Your task to perform on an android device: open chrome and create a bookmark for the current page Image 0: 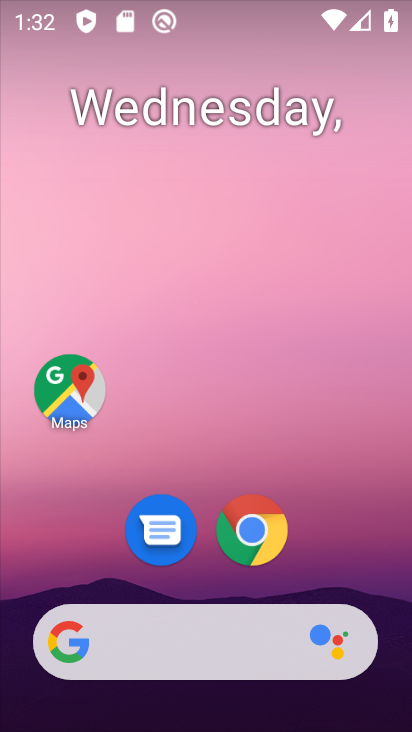
Step 0: click (253, 547)
Your task to perform on an android device: open chrome and create a bookmark for the current page Image 1: 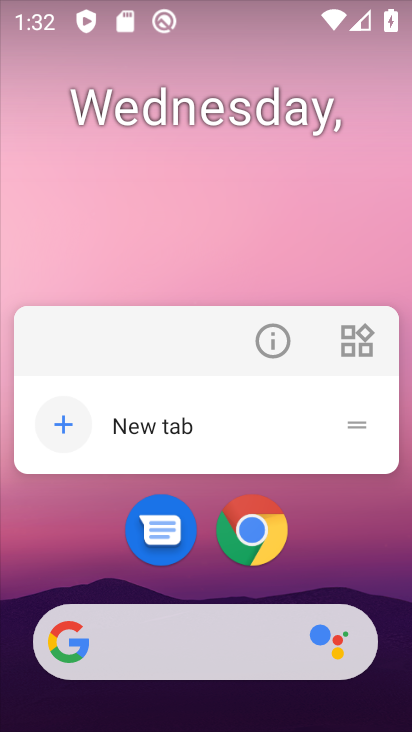
Step 1: click (254, 530)
Your task to perform on an android device: open chrome and create a bookmark for the current page Image 2: 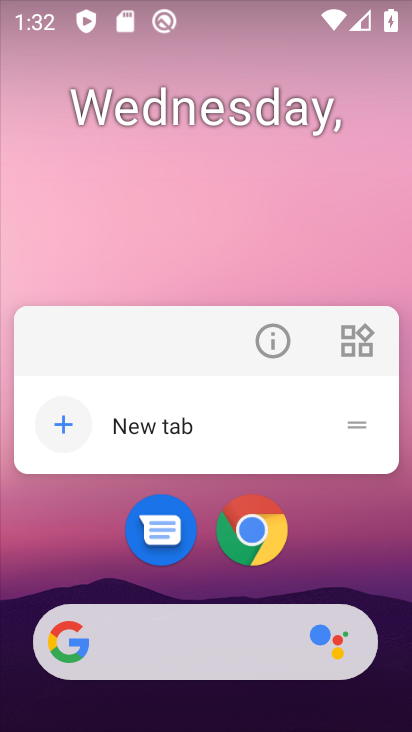
Step 2: click (254, 530)
Your task to perform on an android device: open chrome and create a bookmark for the current page Image 3: 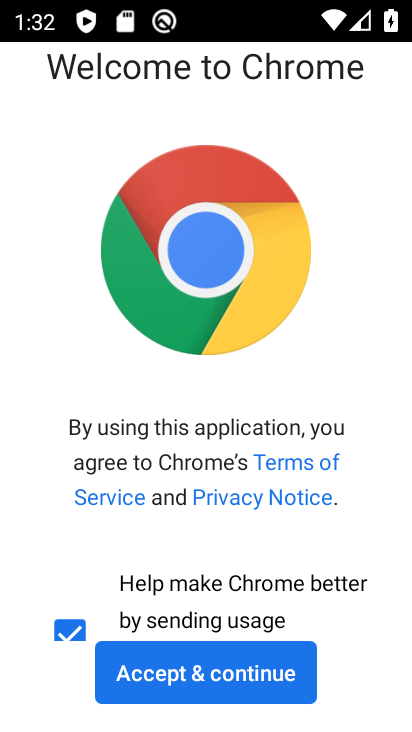
Step 3: click (281, 683)
Your task to perform on an android device: open chrome and create a bookmark for the current page Image 4: 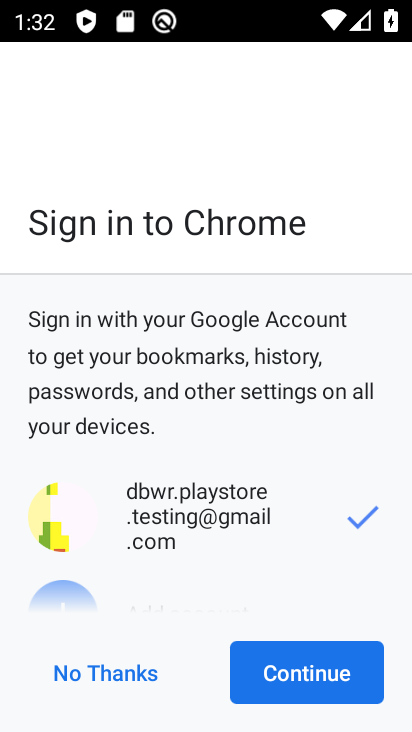
Step 4: click (287, 684)
Your task to perform on an android device: open chrome and create a bookmark for the current page Image 5: 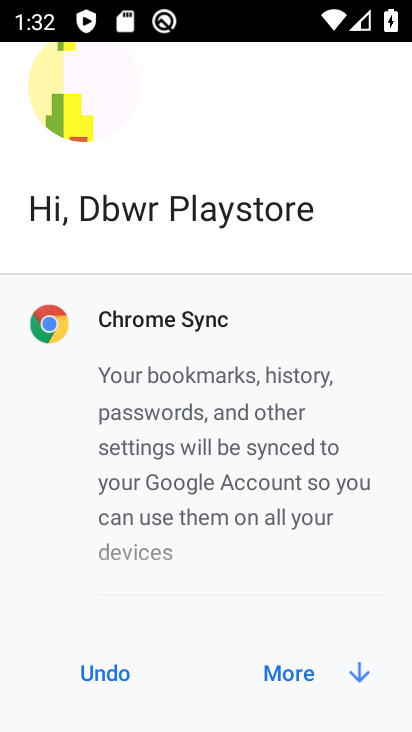
Step 5: click (288, 684)
Your task to perform on an android device: open chrome and create a bookmark for the current page Image 6: 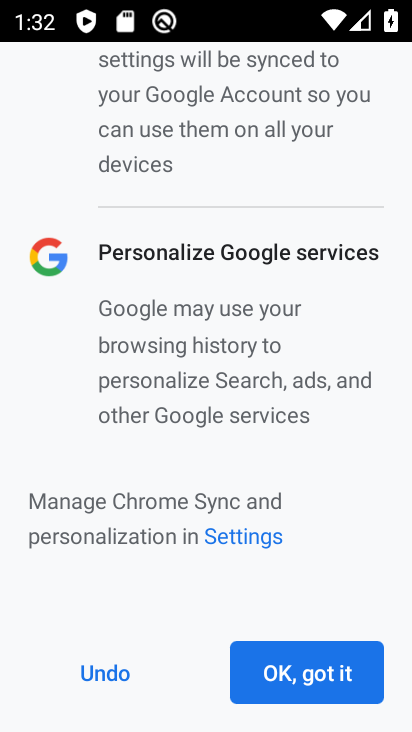
Step 6: click (290, 681)
Your task to perform on an android device: open chrome and create a bookmark for the current page Image 7: 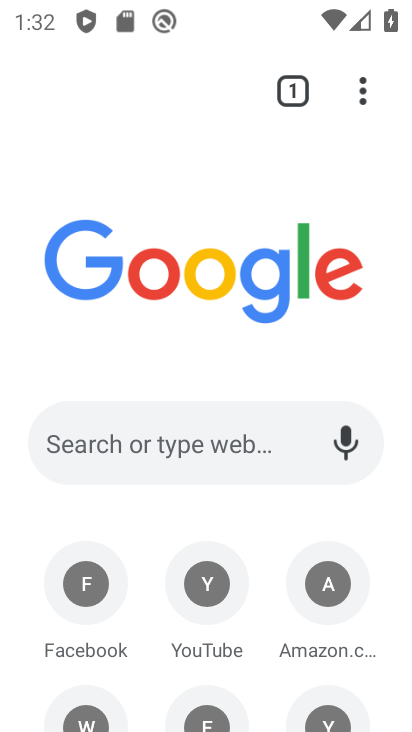
Step 7: task complete